Your task to perform on an android device: Go to sound settings Image 0: 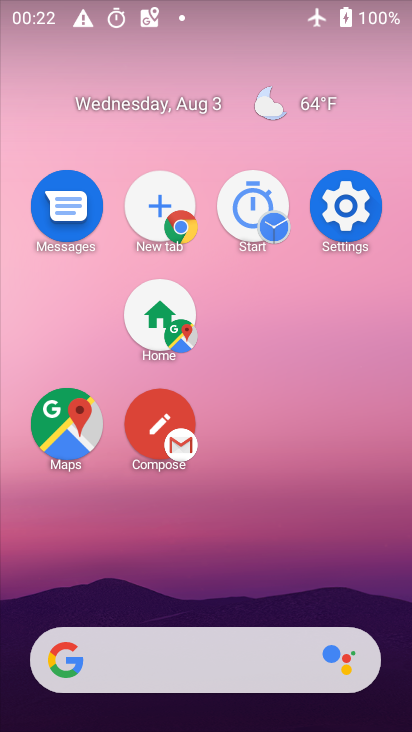
Step 0: drag from (248, 544) to (208, 198)
Your task to perform on an android device: Go to sound settings Image 1: 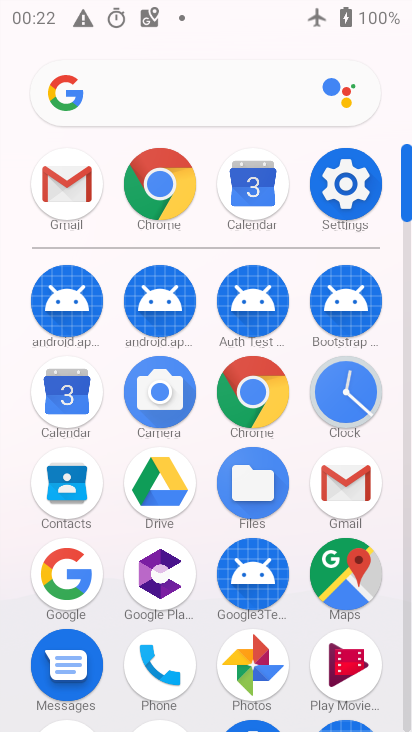
Step 1: drag from (235, 386) to (261, 201)
Your task to perform on an android device: Go to sound settings Image 2: 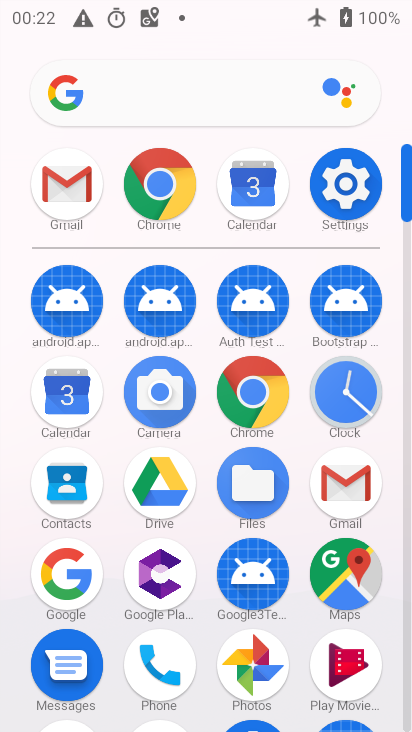
Step 2: click (348, 185)
Your task to perform on an android device: Go to sound settings Image 3: 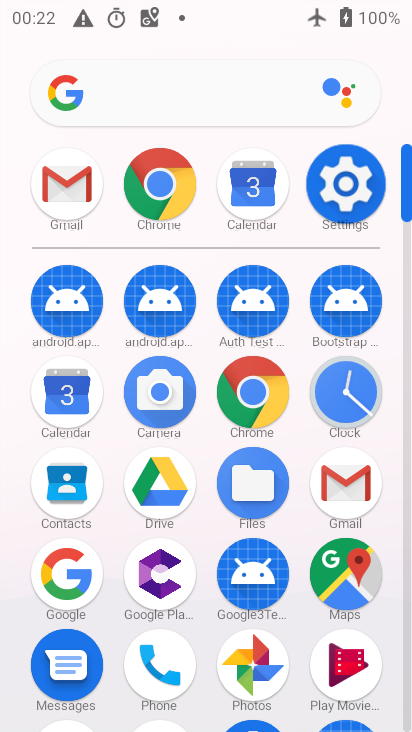
Step 3: click (348, 185)
Your task to perform on an android device: Go to sound settings Image 4: 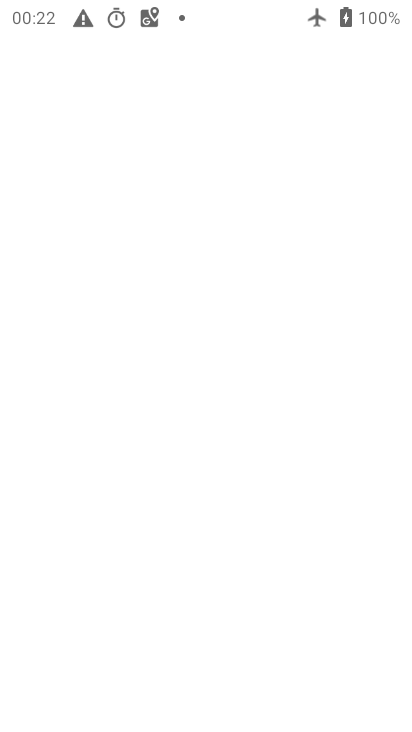
Step 4: click (336, 191)
Your task to perform on an android device: Go to sound settings Image 5: 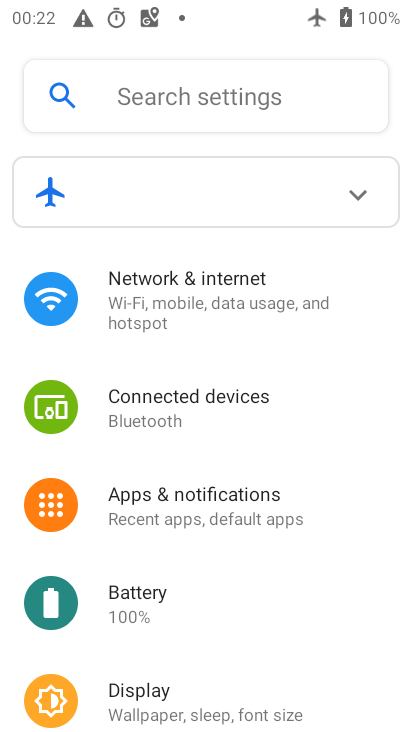
Step 5: drag from (167, 583) to (190, 346)
Your task to perform on an android device: Go to sound settings Image 6: 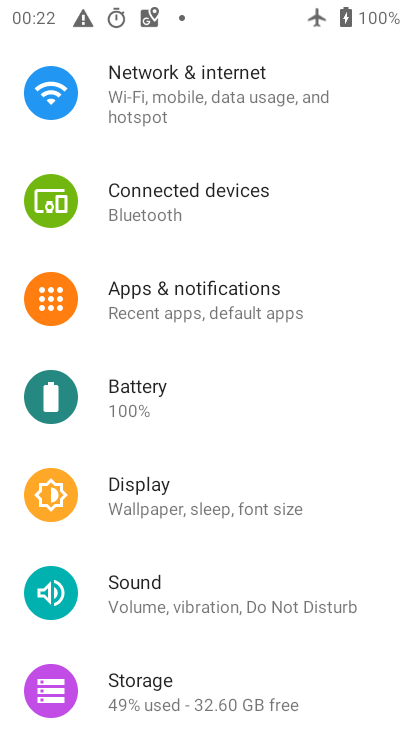
Step 6: drag from (225, 534) to (237, 424)
Your task to perform on an android device: Go to sound settings Image 7: 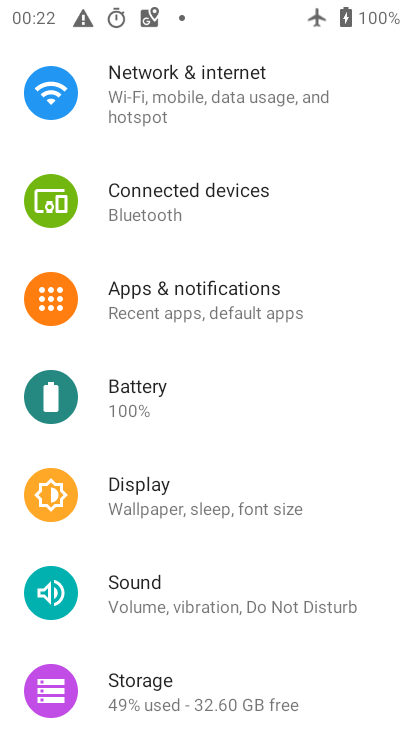
Step 7: click (157, 595)
Your task to perform on an android device: Go to sound settings Image 8: 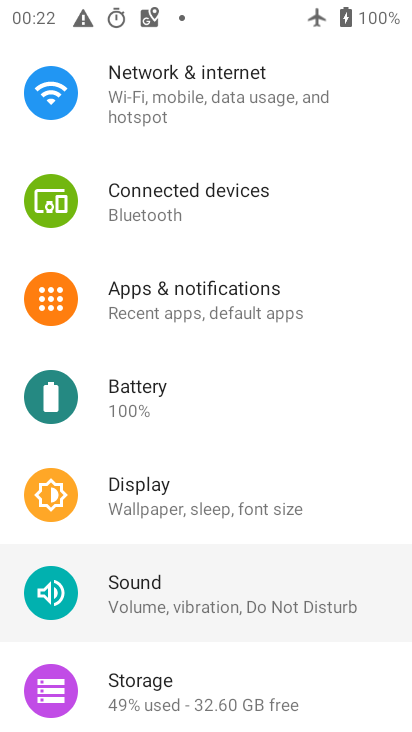
Step 8: click (153, 599)
Your task to perform on an android device: Go to sound settings Image 9: 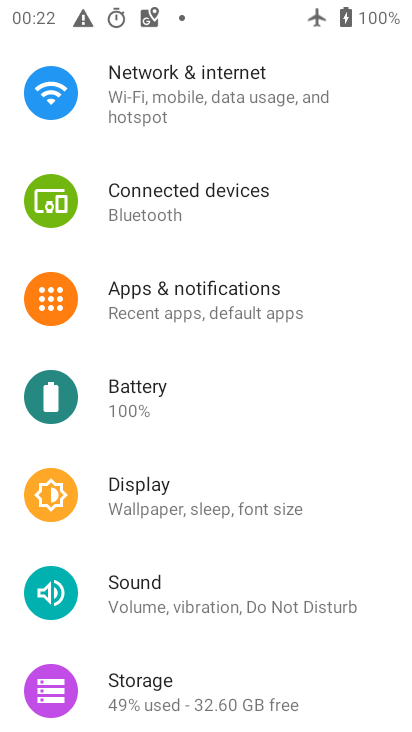
Step 9: click (153, 599)
Your task to perform on an android device: Go to sound settings Image 10: 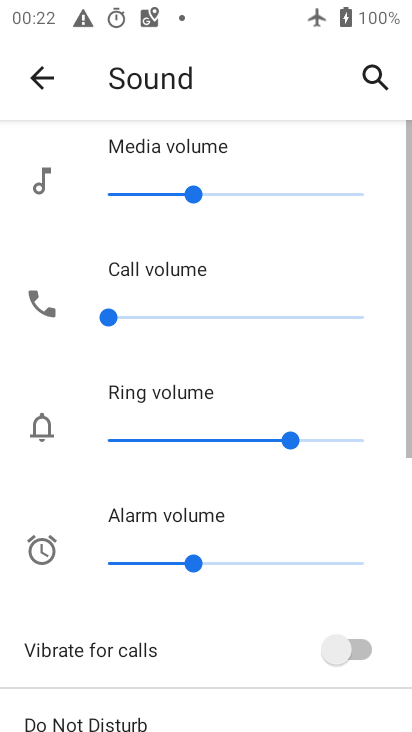
Step 10: drag from (201, 440) to (192, 147)
Your task to perform on an android device: Go to sound settings Image 11: 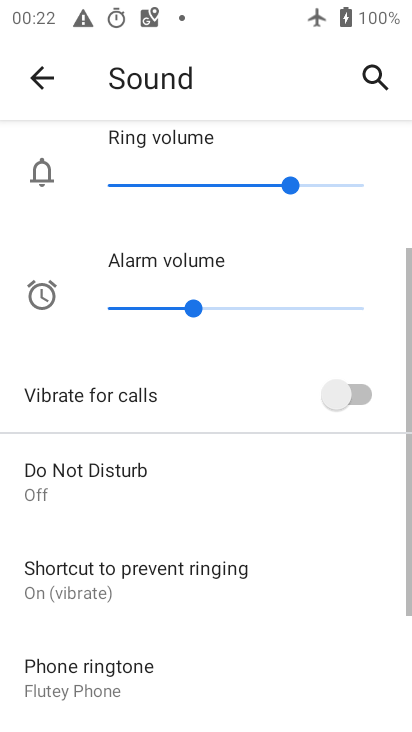
Step 11: click (162, 218)
Your task to perform on an android device: Go to sound settings Image 12: 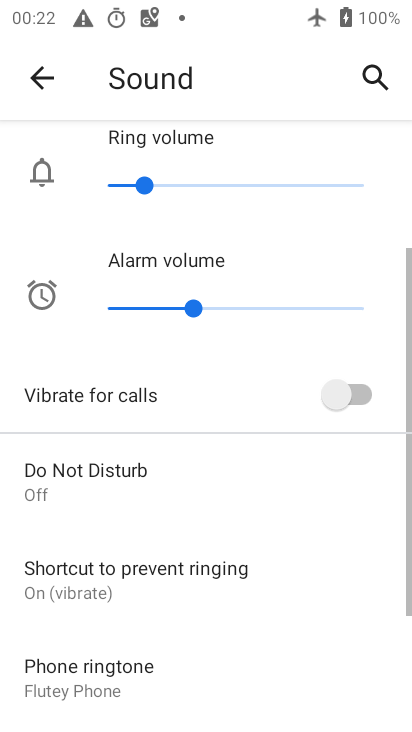
Step 12: task complete